Your task to perform on an android device: toggle pop-ups in chrome Image 0: 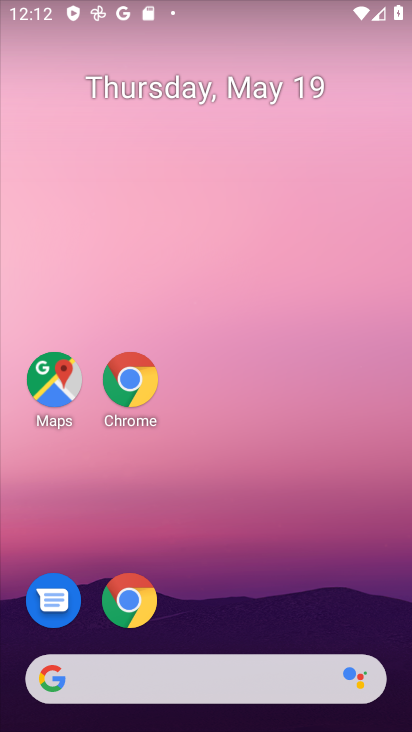
Step 0: drag from (380, 664) to (117, 168)
Your task to perform on an android device: toggle pop-ups in chrome Image 1: 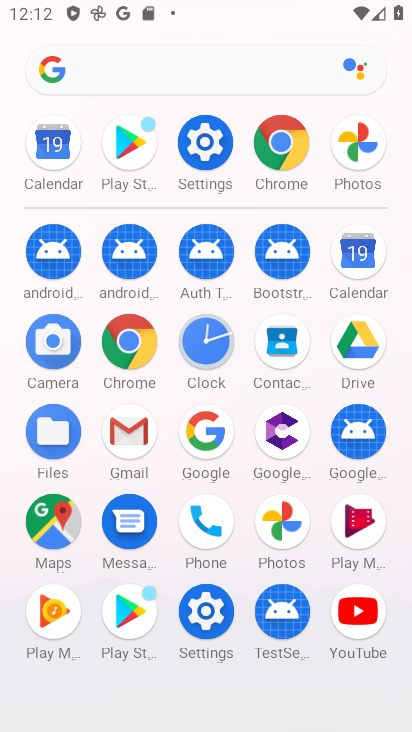
Step 1: click (282, 150)
Your task to perform on an android device: toggle pop-ups in chrome Image 2: 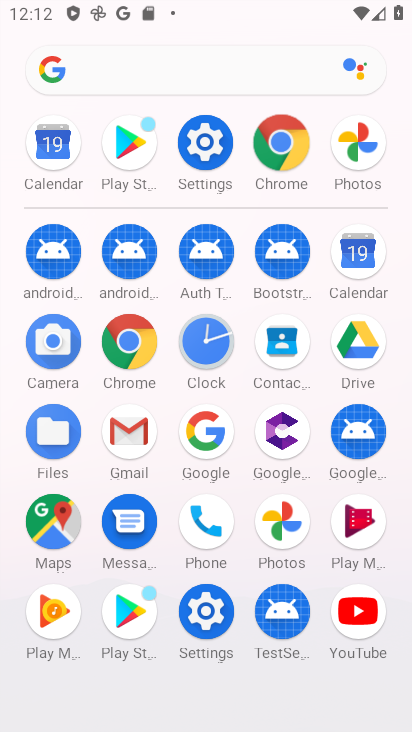
Step 2: click (279, 149)
Your task to perform on an android device: toggle pop-ups in chrome Image 3: 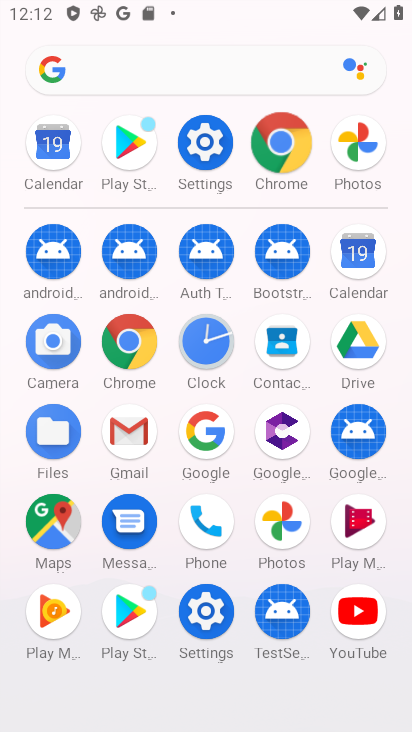
Step 3: click (279, 149)
Your task to perform on an android device: toggle pop-ups in chrome Image 4: 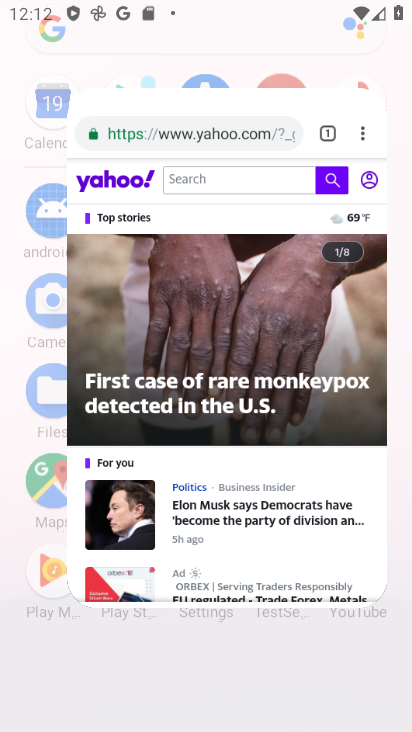
Step 4: click (281, 151)
Your task to perform on an android device: toggle pop-ups in chrome Image 5: 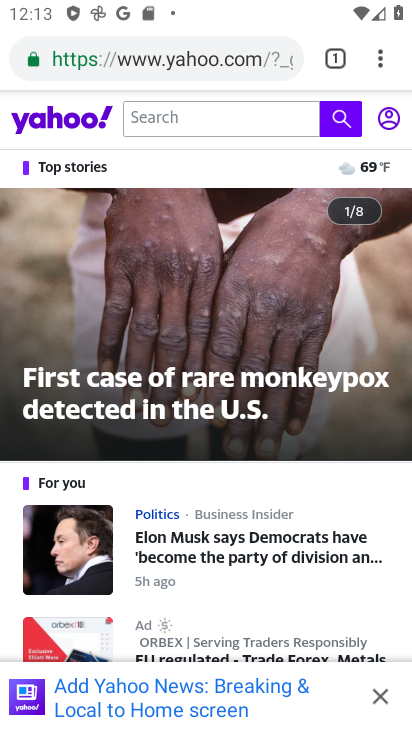
Step 5: drag from (376, 62) to (142, 613)
Your task to perform on an android device: toggle pop-ups in chrome Image 6: 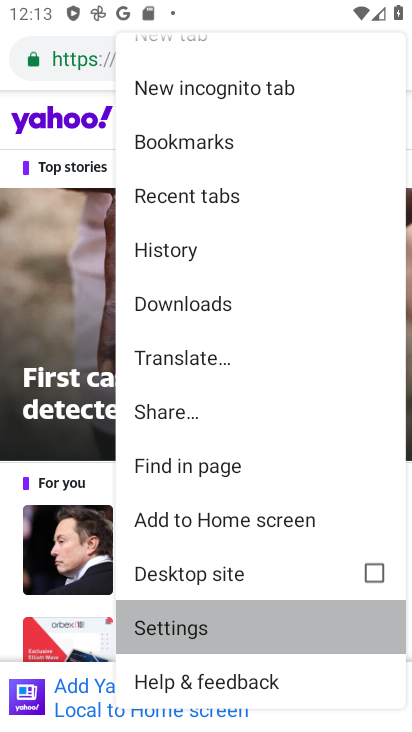
Step 6: click (151, 612)
Your task to perform on an android device: toggle pop-ups in chrome Image 7: 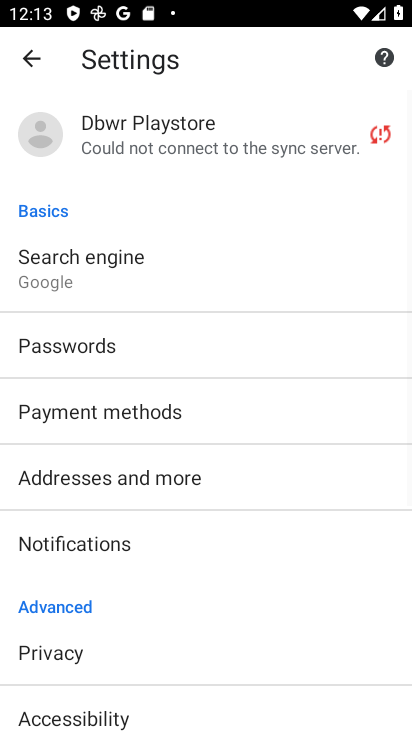
Step 7: drag from (145, 565) to (167, 215)
Your task to perform on an android device: toggle pop-ups in chrome Image 8: 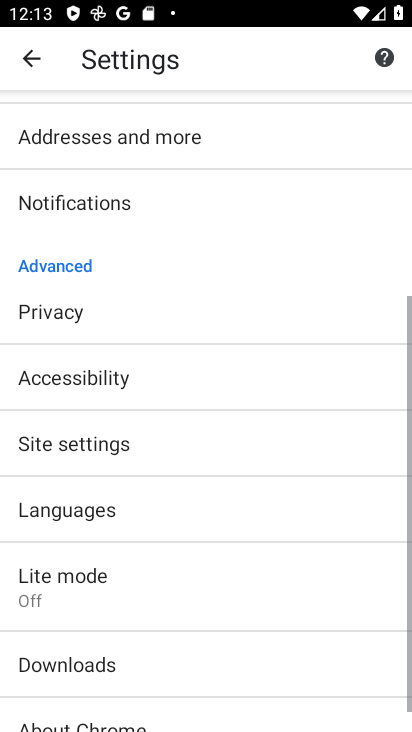
Step 8: drag from (193, 426) to (163, 158)
Your task to perform on an android device: toggle pop-ups in chrome Image 9: 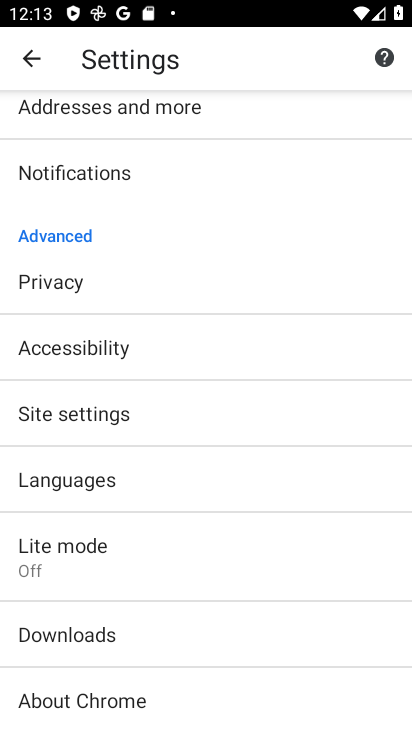
Step 9: click (56, 415)
Your task to perform on an android device: toggle pop-ups in chrome Image 10: 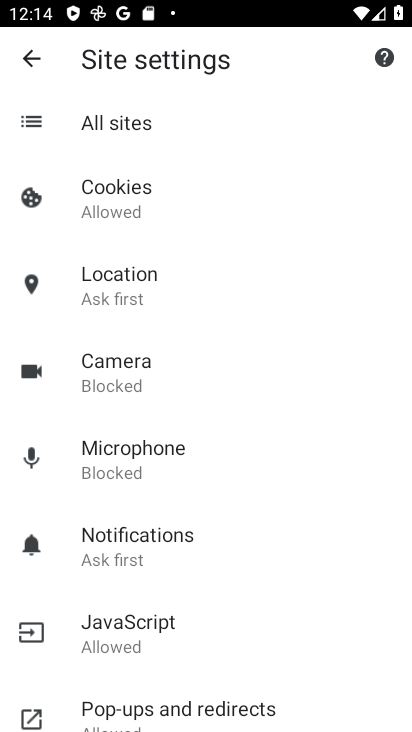
Step 10: click (134, 708)
Your task to perform on an android device: toggle pop-ups in chrome Image 11: 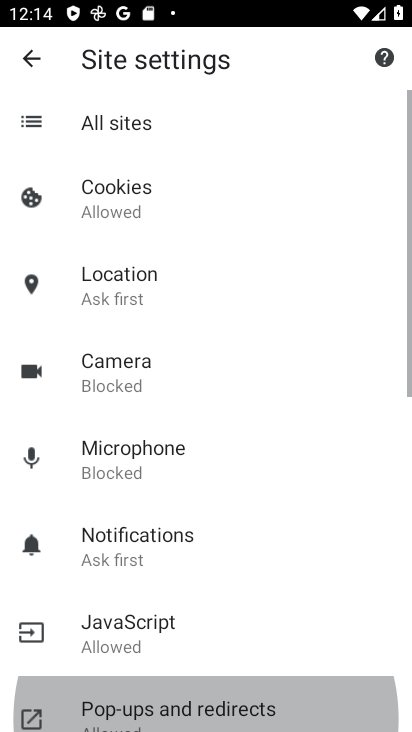
Step 11: click (134, 708)
Your task to perform on an android device: toggle pop-ups in chrome Image 12: 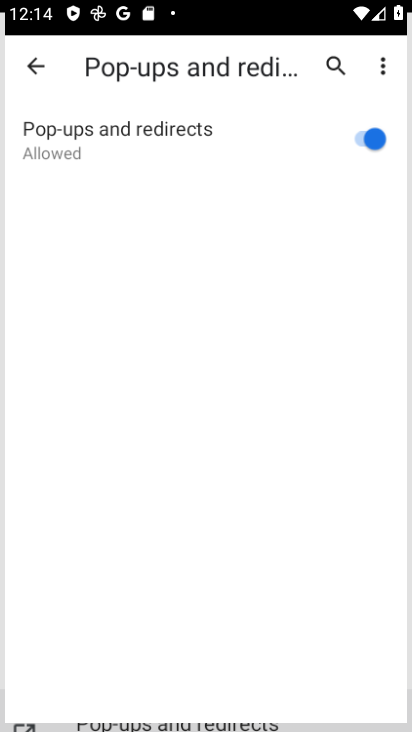
Step 12: click (137, 710)
Your task to perform on an android device: toggle pop-ups in chrome Image 13: 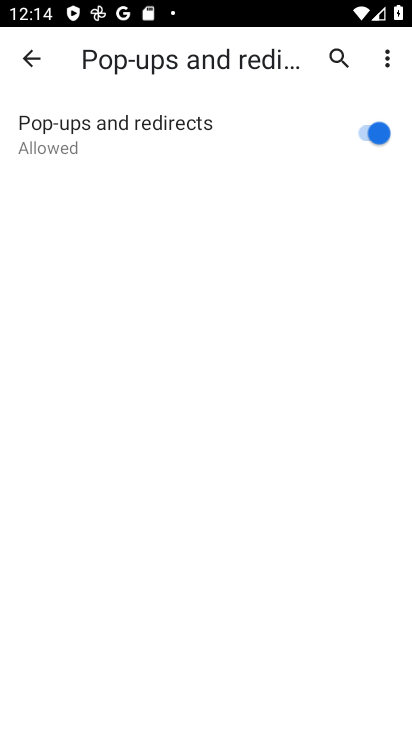
Step 13: task complete